Your task to perform on an android device: toggle pop-ups in chrome Image 0: 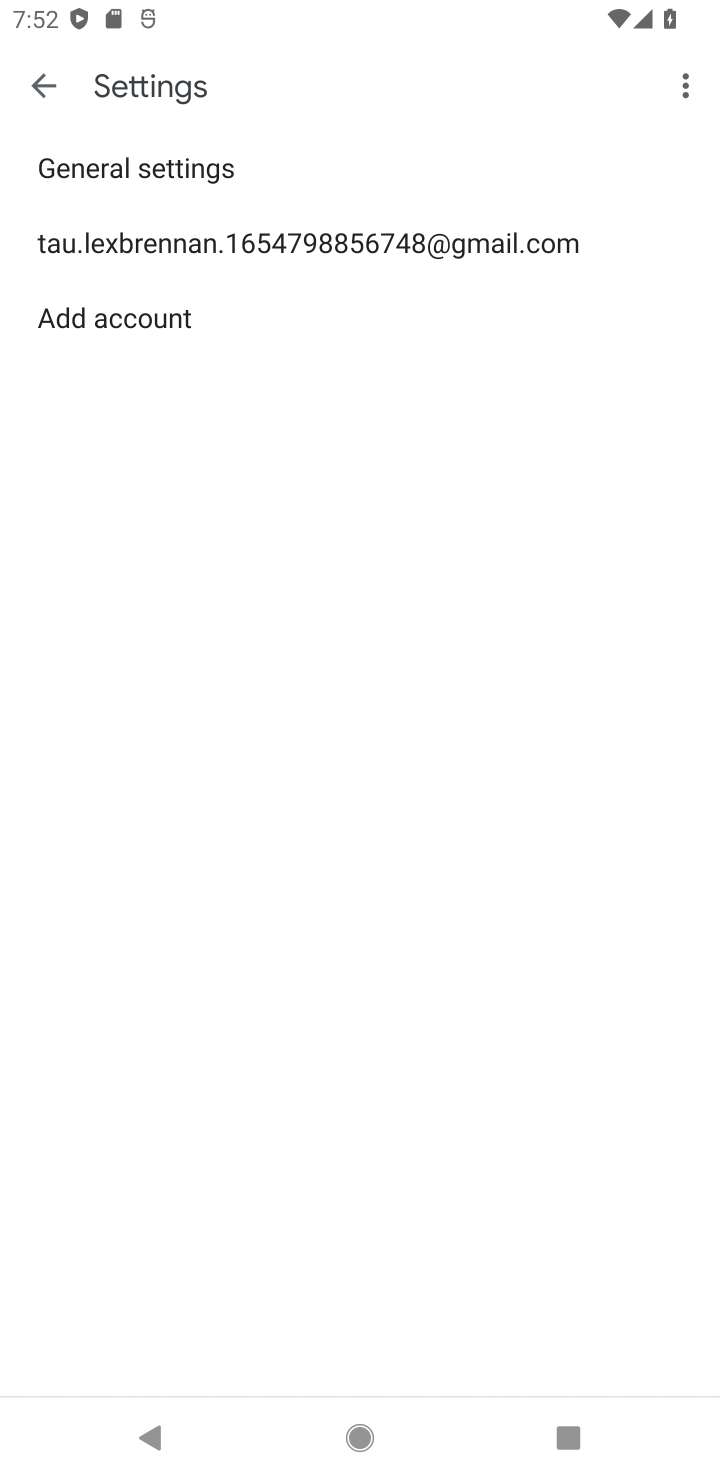
Step 0: click (542, 273)
Your task to perform on an android device: toggle pop-ups in chrome Image 1: 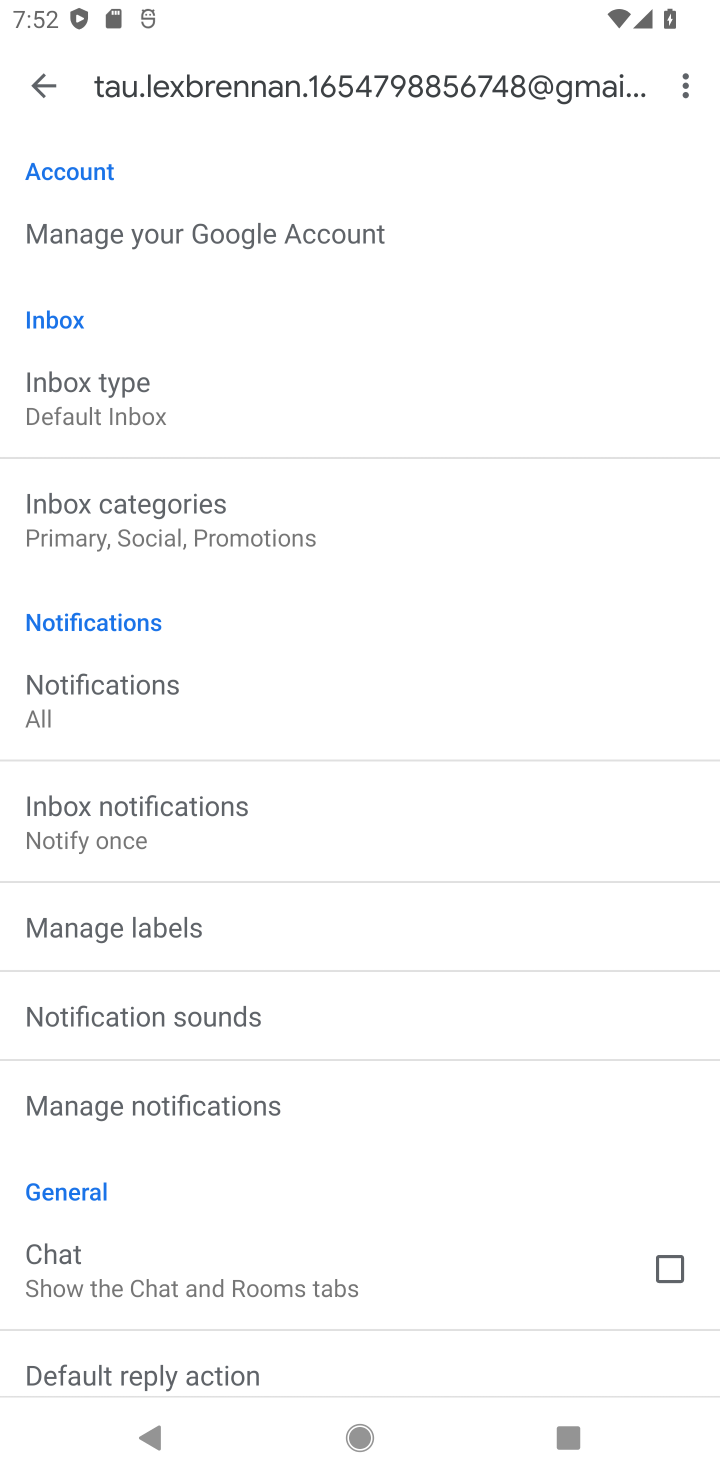
Step 1: task complete